Your task to perform on an android device: Open network settings Image 0: 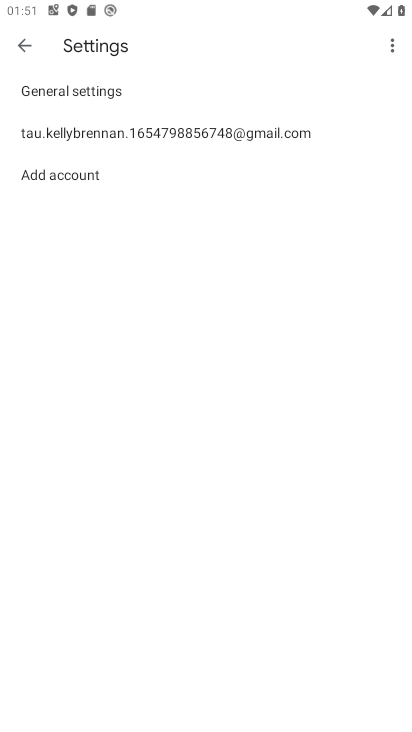
Step 0: press home button
Your task to perform on an android device: Open network settings Image 1: 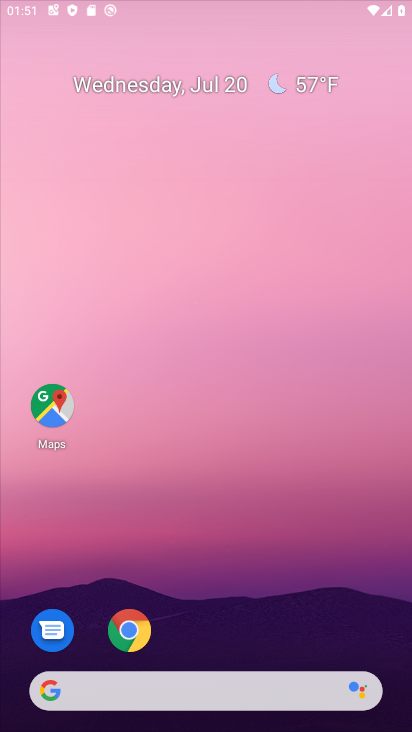
Step 1: drag from (256, 649) to (202, 179)
Your task to perform on an android device: Open network settings Image 2: 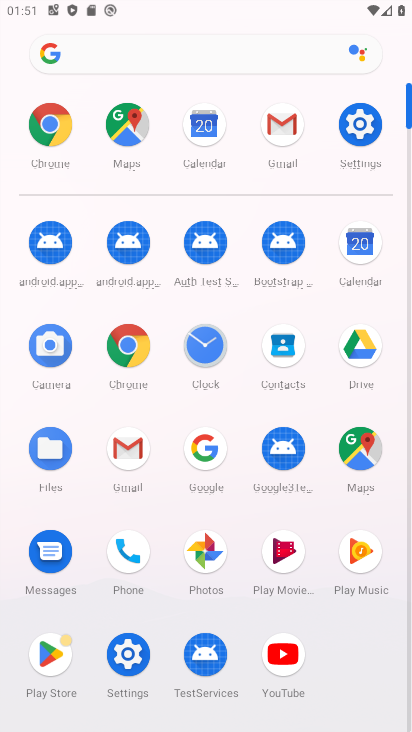
Step 2: click (130, 646)
Your task to perform on an android device: Open network settings Image 3: 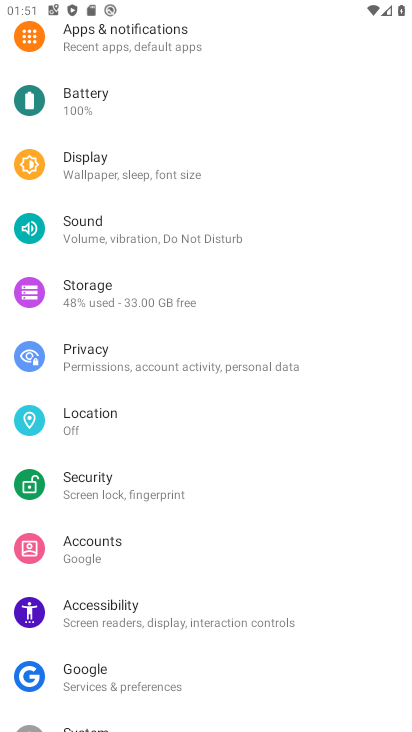
Step 3: drag from (226, 570) to (150, 731)
Your task to perform on an android device: Open network settings Image 4: 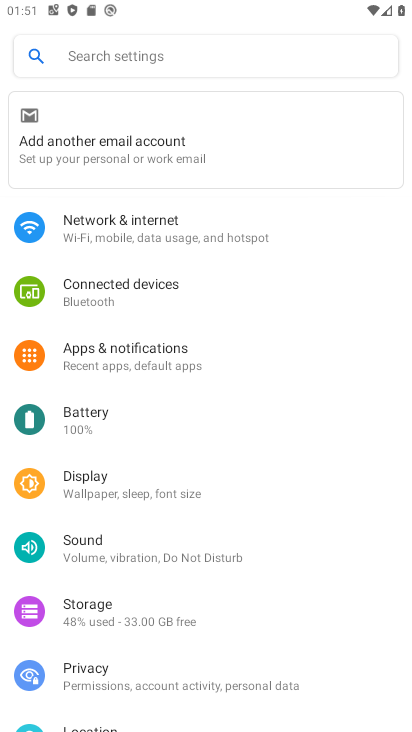
Step 4: click (127, 223)
Your task to perform on an android device: Open network settings Image 5: 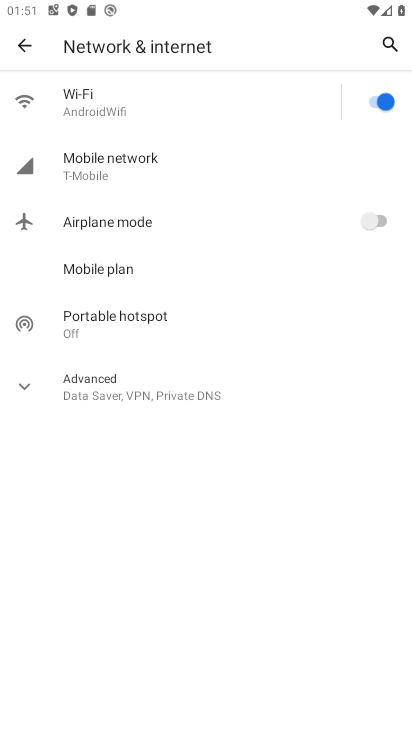
Step 5: click (224, 106)
Your task to perform on an android device: Open network settings Image 6: 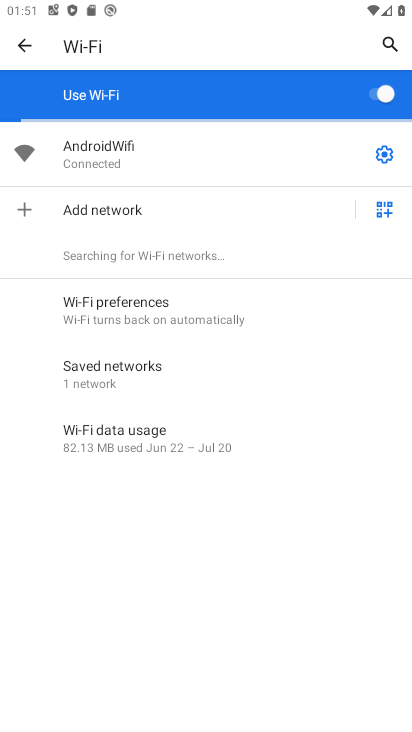
Step 6: task complete